Your task to perform on an android device: check battery use Image 0: 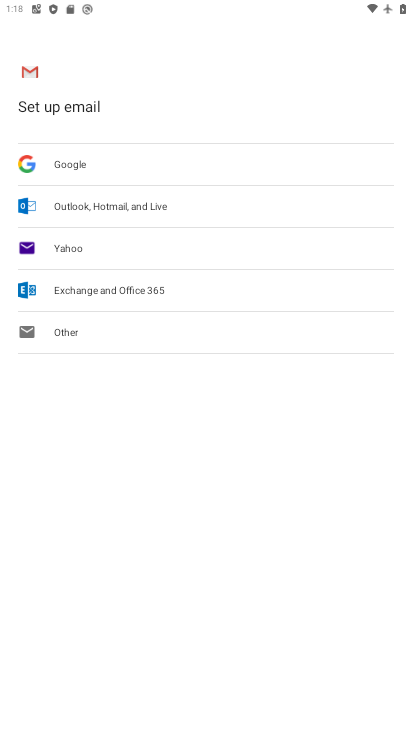
Step 0: press home button
Your task to perform on an android device: check battery use Image 1: 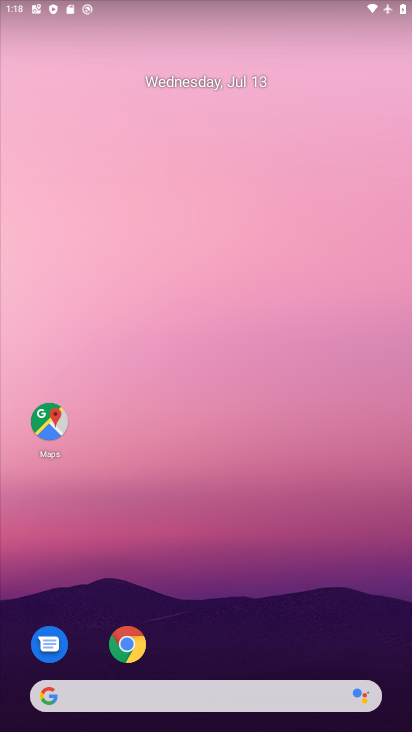
Step 1: drag from (251, 564) to (185, 101)
Your task to perform on an android device: check battery use Image 2: 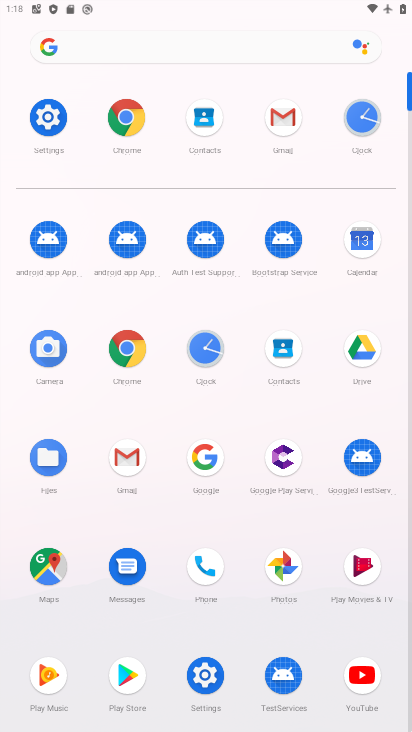
Step 2: click (63, 112)
Your task to perform on an android device: check battery use Image 3: 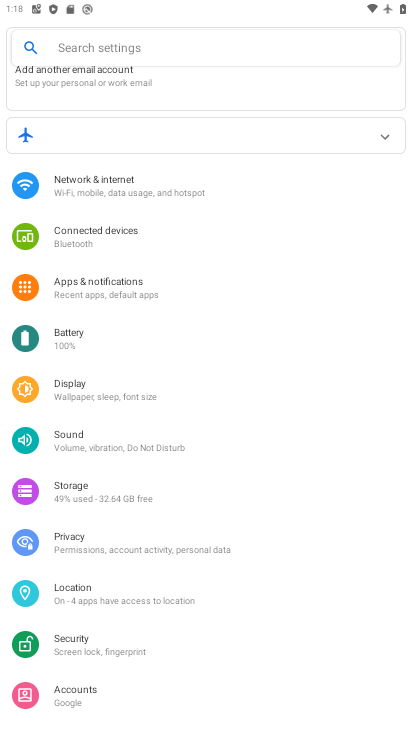
Step 3: click (56, 338)
Your task to perform on an android device: check battery use Image 4: 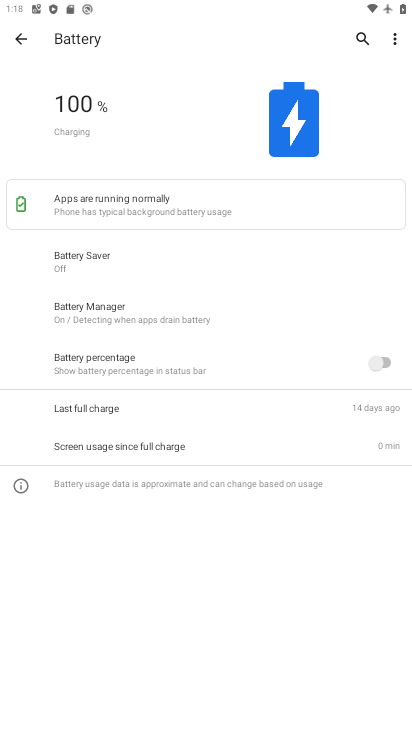
Step 4: click (399, 36)
Your task to perform on an android device: check battery use Image 5: 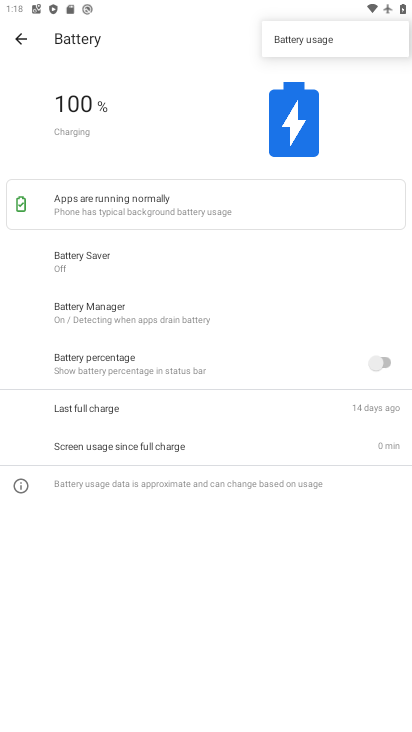
Step 5: click (323, 36)
Your task to perform on an android device: check battery use Image 6: 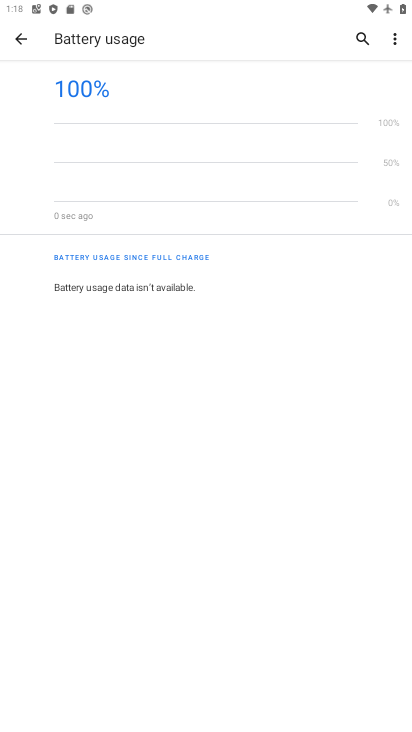
Step 6: task complete